Your task to perform on an android device: Go to Wikipedia Image 0: 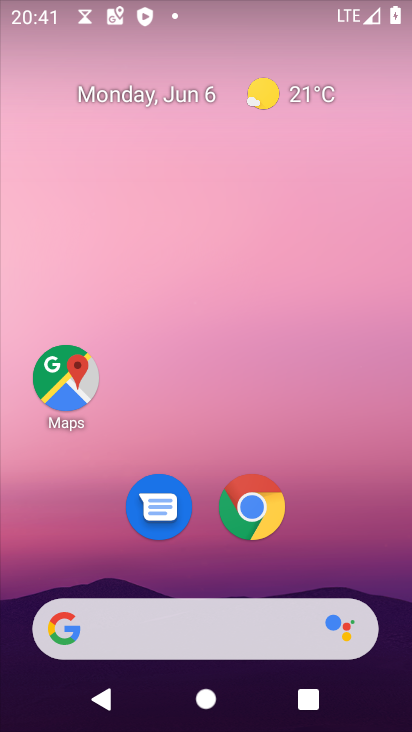
Step 0: drag from (214, 576) to (191, 2)
Your task to perform on an android device: Go to Wikipedia Image 1: 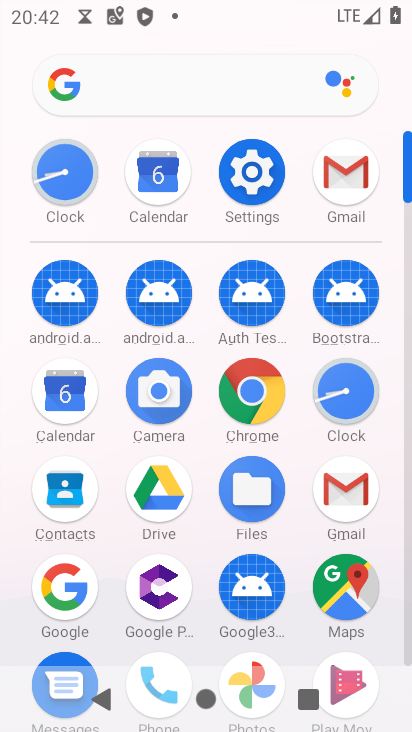
Step 1: click (252, 393)
Your task to perform on an android device: Go to Wikipedia Image 2: 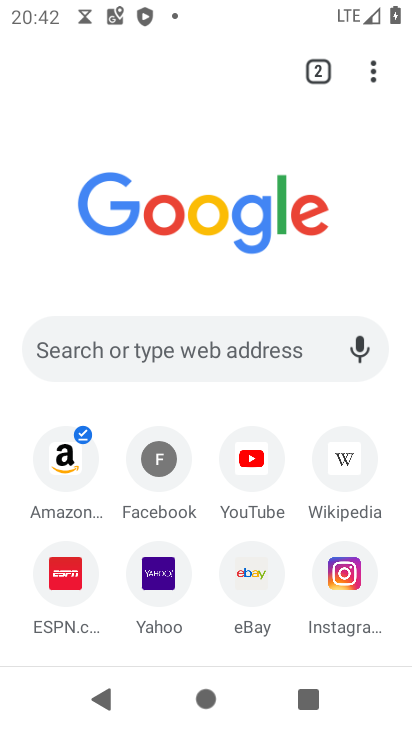
Step 2: click (331, 471)
Your task to perform on an android device: Go to Wikipedia Image 3: 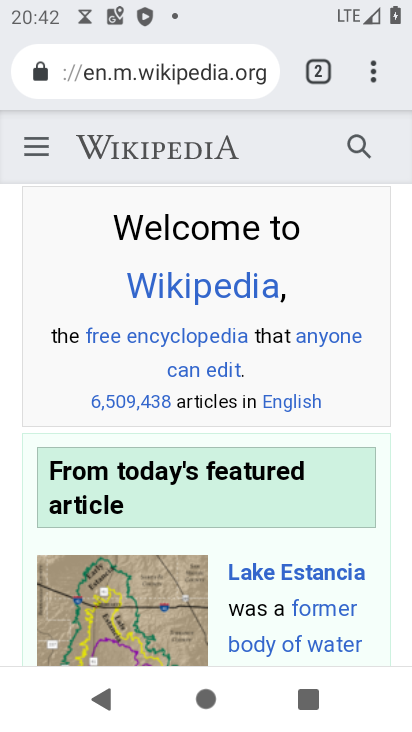
Step 3: task complete